Your task to perform on an android device: turn on the 24-hour format for clock Image 0: 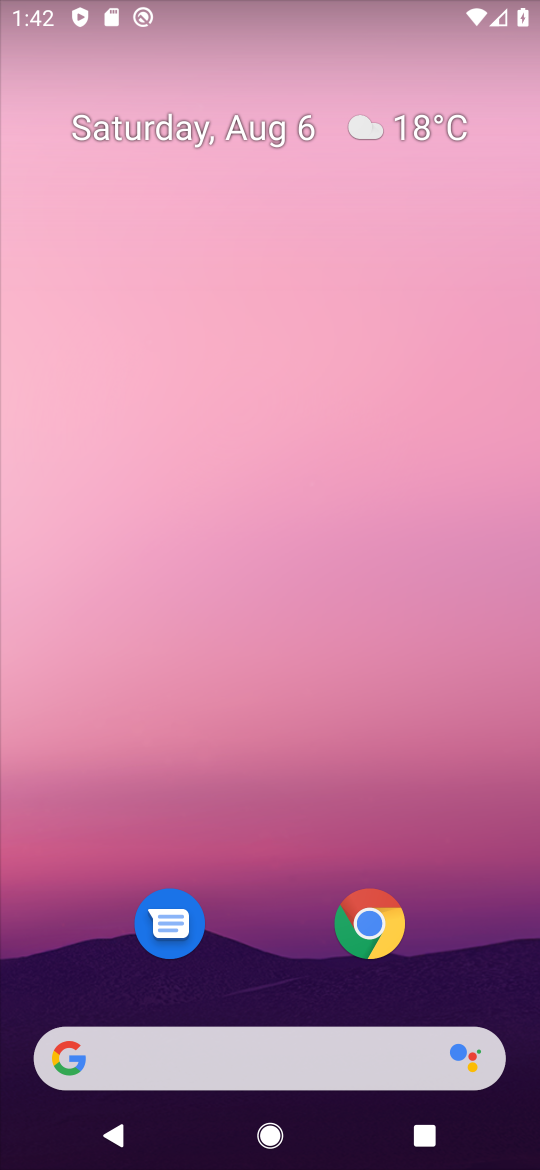
Step 0: drag from (279, 980) to (277, 203)
Your task to perform on an android device: turn on the 24-hour format for clock Image 1: 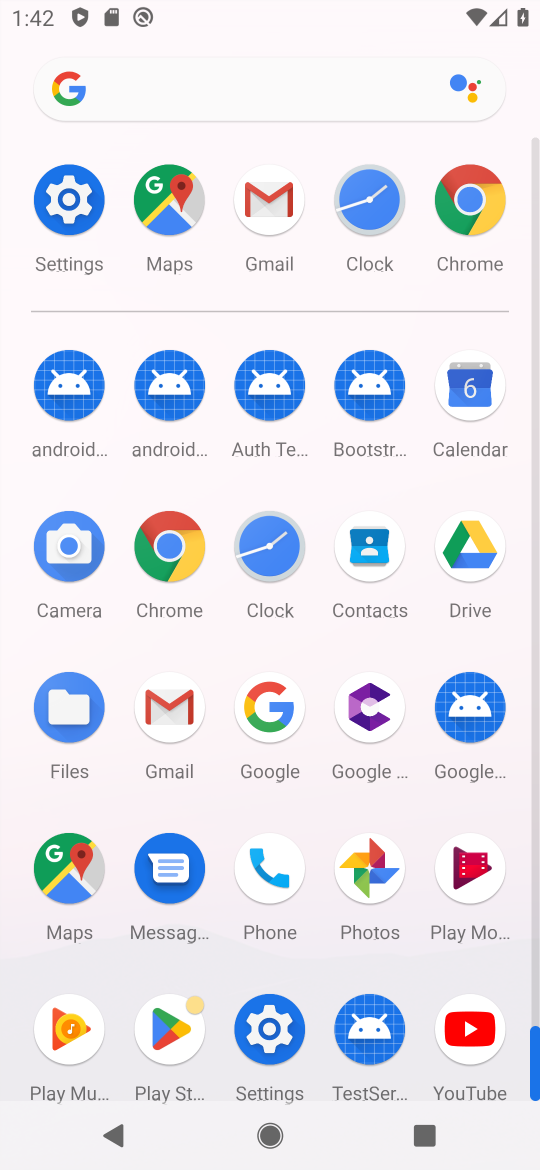
Step 1: click (276, 550)
Your task to perform on an android device: turn on the 24-hour format for clock Image 2: 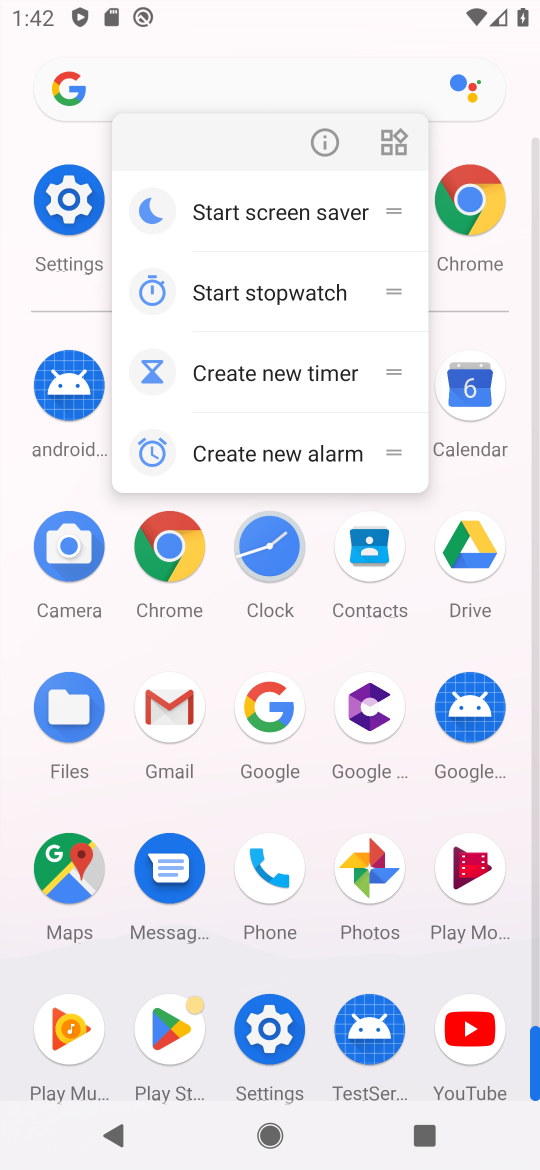
Step 2: click (327, 147)
Your task to perform on an android device: turn on the 24-hour format for clock Image 3: 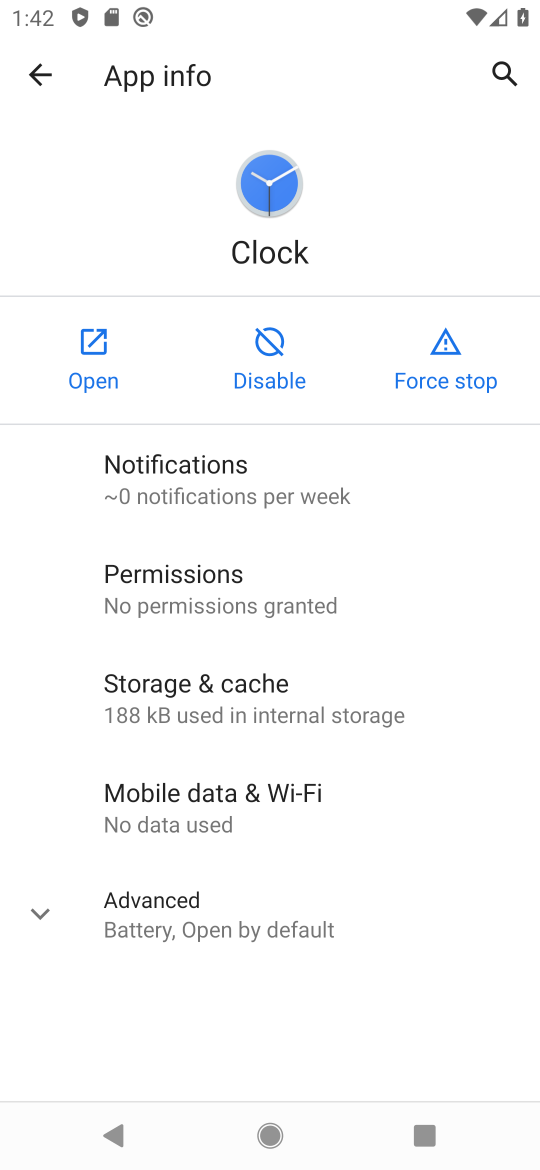
Step 3: click (83, 344)
Your task to perform on an android device: turn on the 24-hour format for clock Image 4: 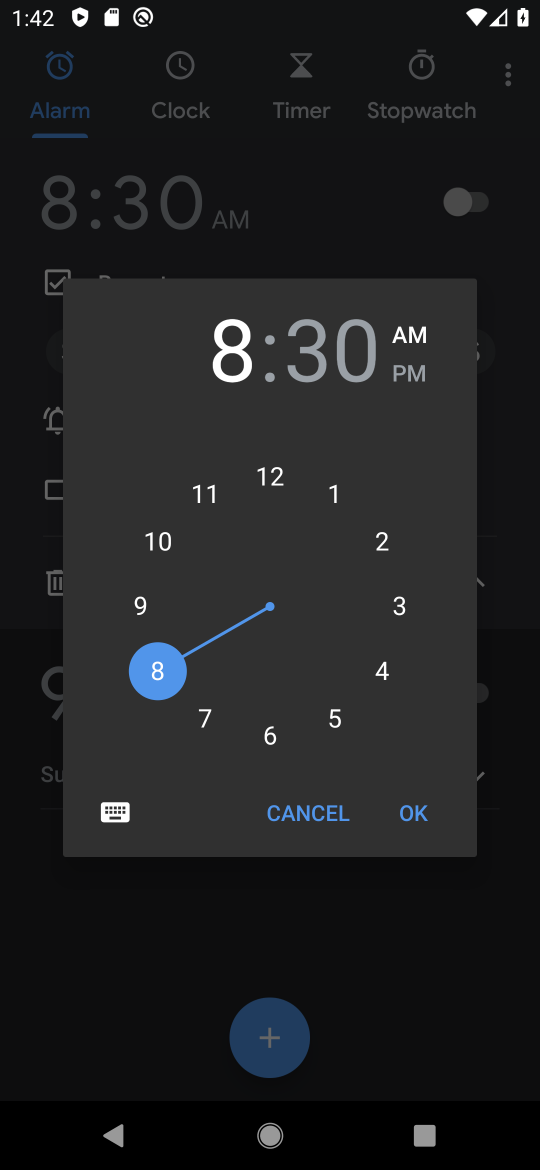
Step 4: click (311, 803)
Your task to perform on an android device: turn on the 24-hour format for clock Image 5: 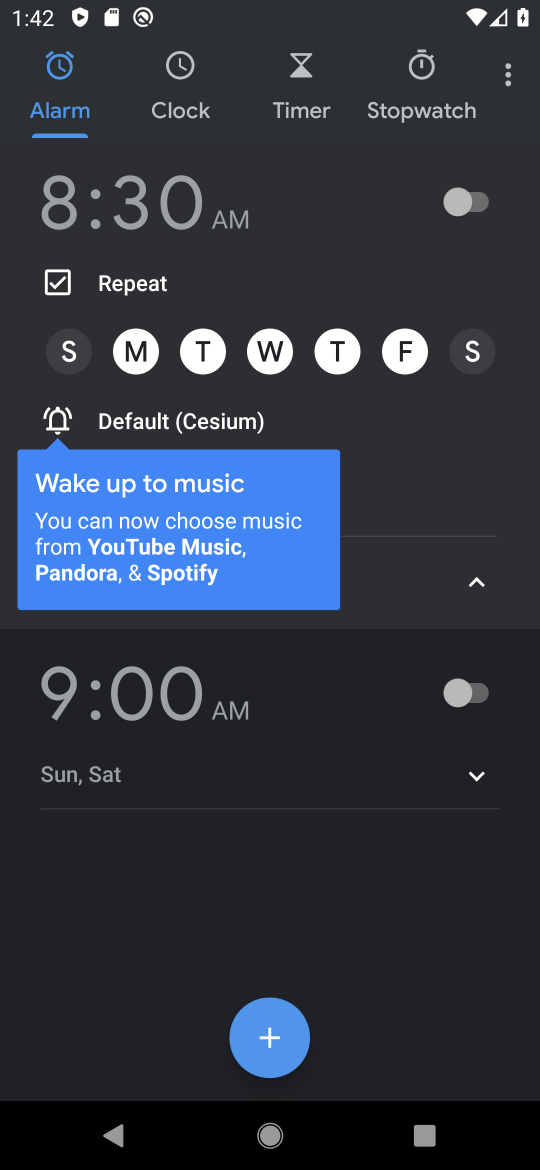
Step 5: drag from (516, 72) to (341, 147)
Your task to perform on an android device: turn on the 24-hour format for clock Image 6: 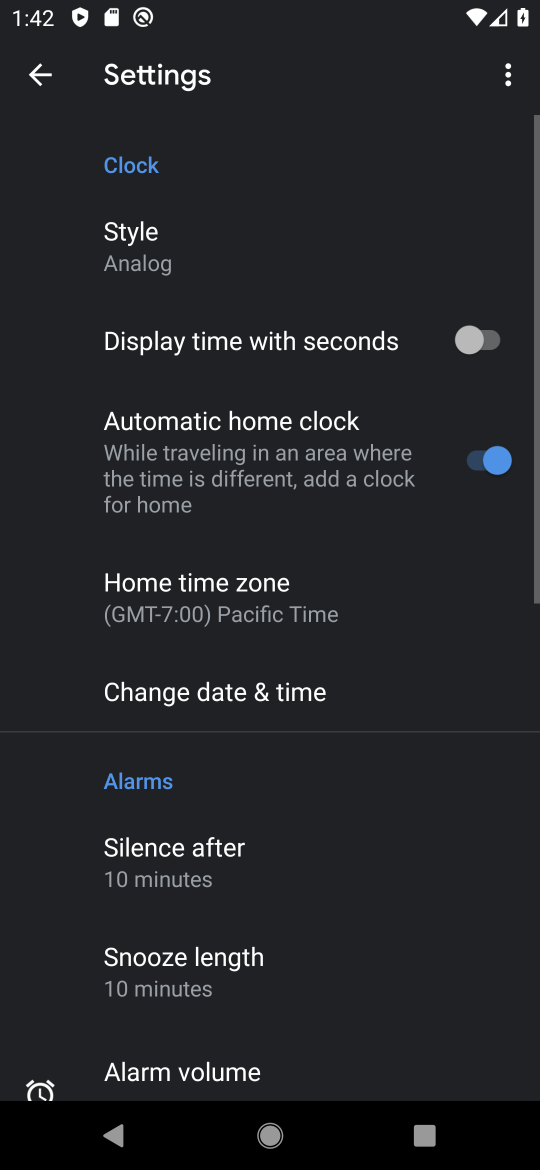
Step 6: click (149, 682)
Your task to perform on an android device: turn on the 24-hour format for clock Image 7: 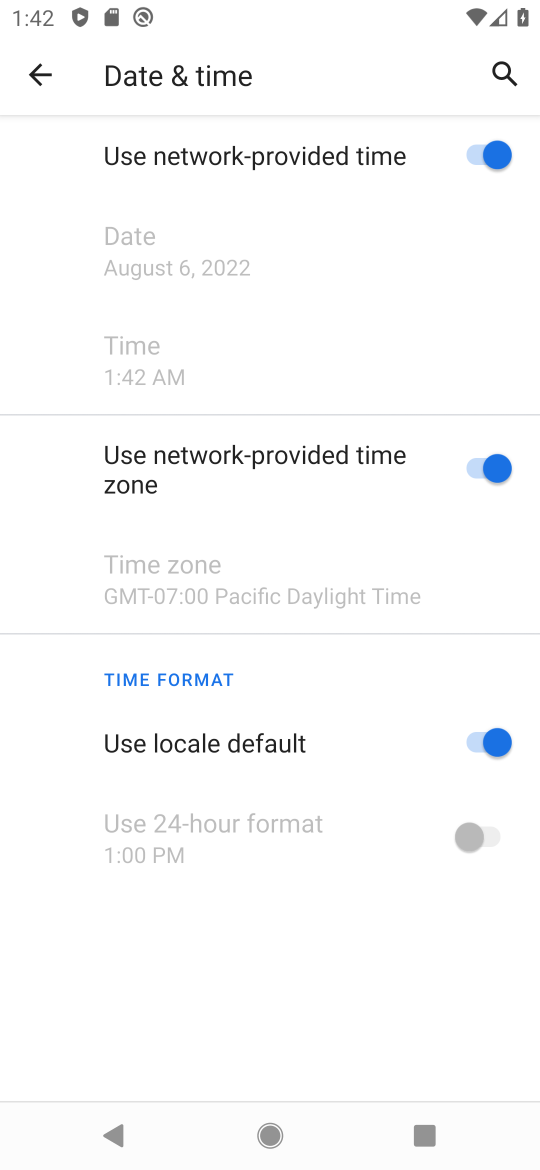
Step 7: click (496, 734)
Your task to perform on an android device: turn on the 24-hour format for clock Image 8: 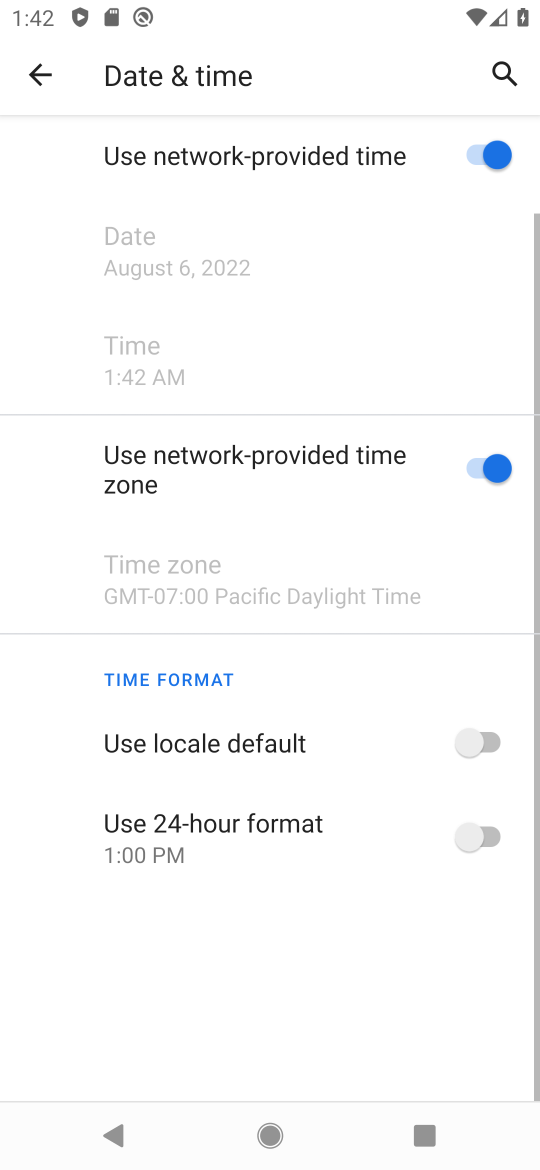
Step 8: click (463, 831)
Your task to perform on an android device: turn on the 24-hour format for clock Image 9: 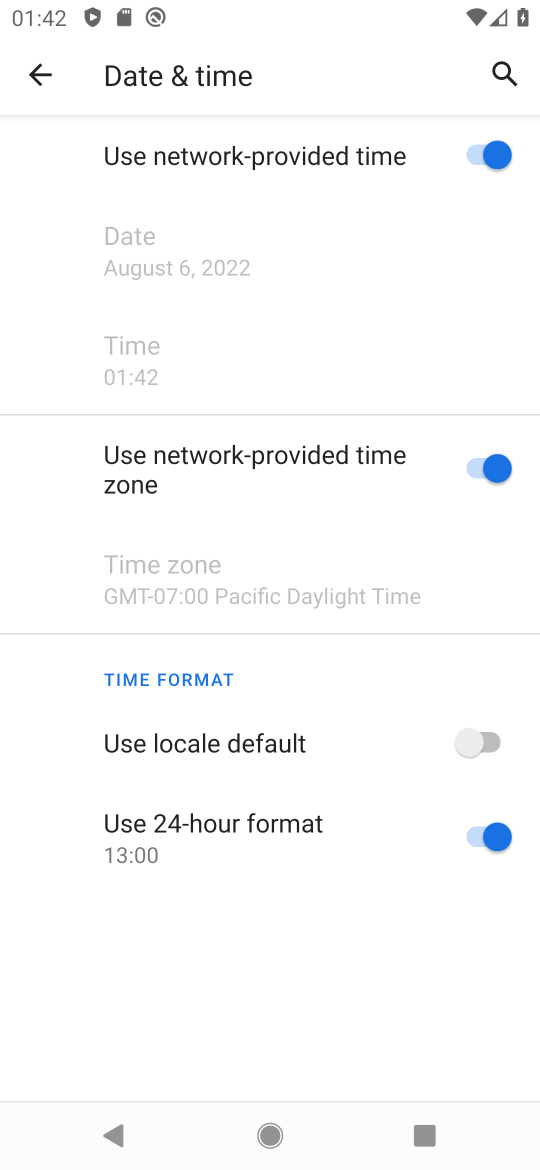
Step 9: task complete